Your task to perform on an android device: Show me popular videos on Youtube Image 0: 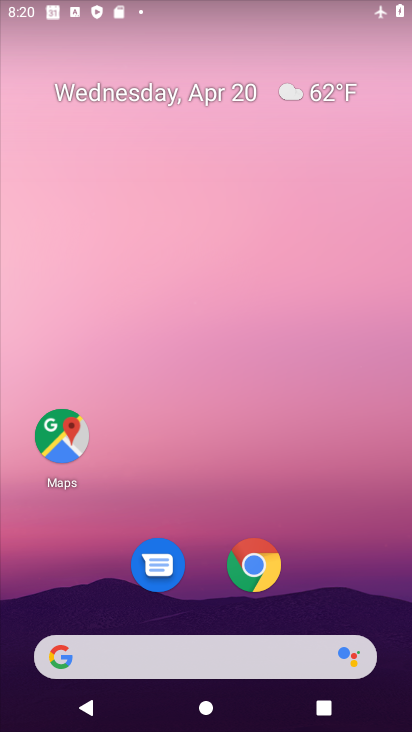
Step 0: drag from (338, 572) to (233, 85)
Your task to perform on an android device: Show me popular videos on Youtube Image 1: 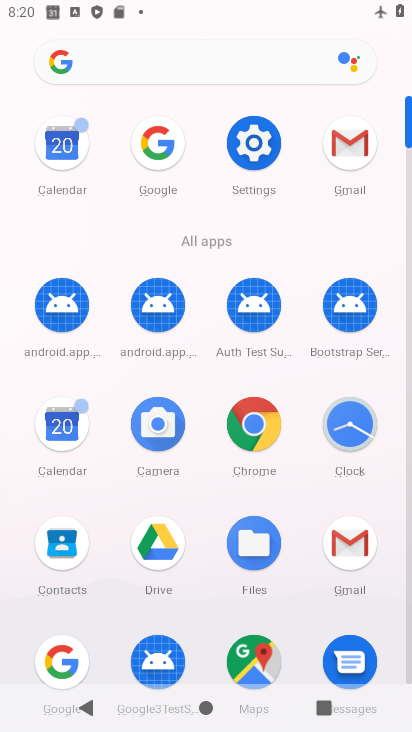
Step 1: drag from (401, 536) to (385, 187)
Your task to perform on an android device: Show me popular videos on Youtube Image 2: 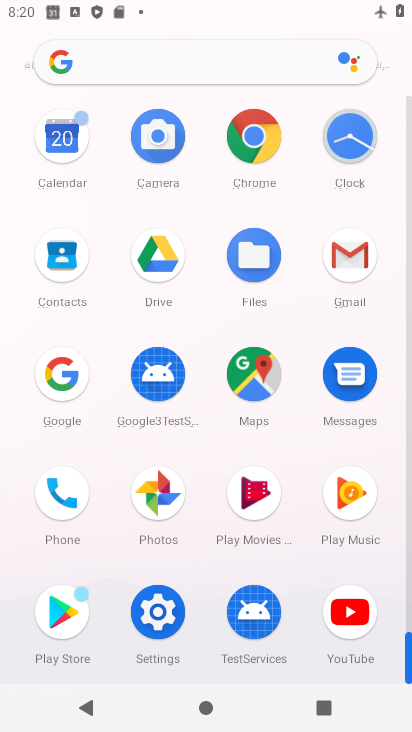
Step 2: click (361, 615)
Your task to perform on an android device: Show me popular videos on Youtube Image 3: 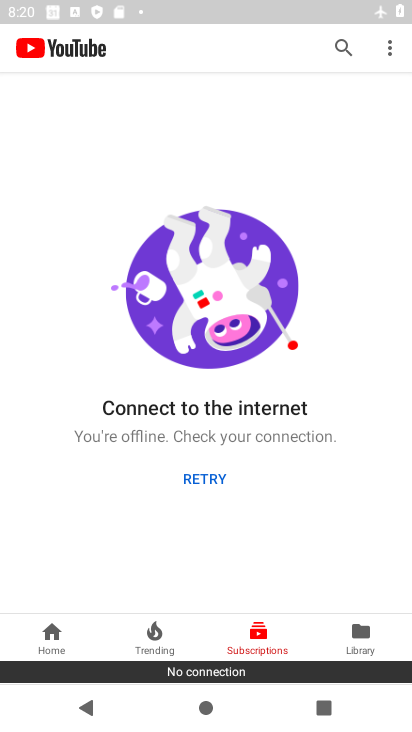
Step 3: click (53, 638)
Your task to perform on an android device: Show me popular videos on Youtube Image 4: 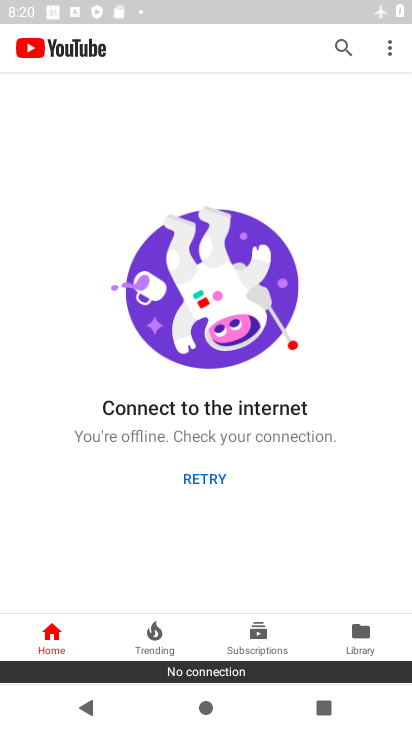
Step 4: click (171, 485)
Your task to perform on an android device: Show me popular videos on Youtube Image 5: 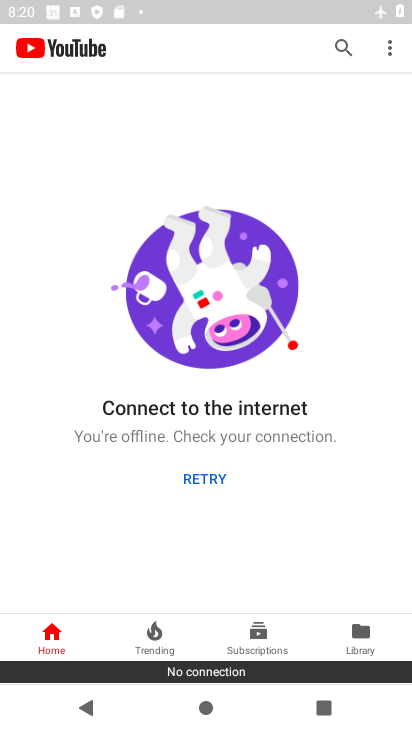
Step 5: click (205, 495)
Your task to perform on an android device: Show me popular videos on Youtube Image 6: 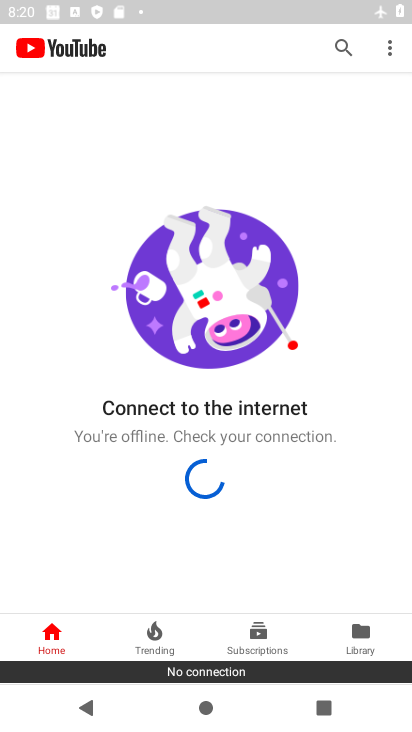
Step 6: click (196, 477)
Your task to perform on an android device: Show me popular videos on Youtube Image 7: 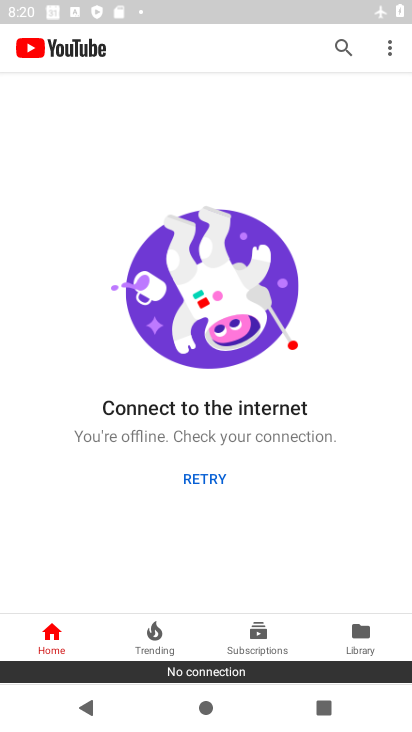
Step 7: task complete